Your task to perform on an android device: open chrome privacy settings Image 0: 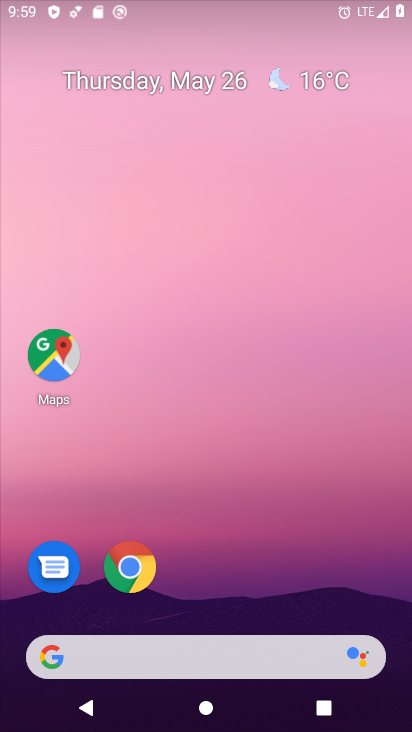
Step 0: click (143, 566)
Your task to perform on an android device: open chrome privacy settings Image 1: 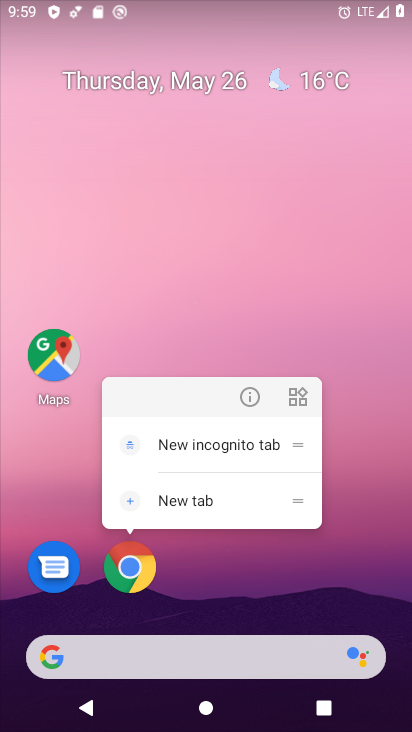
Step 1: click (125, 571)
Your task to perform on an android device: open chrome privacy settings Image 2: 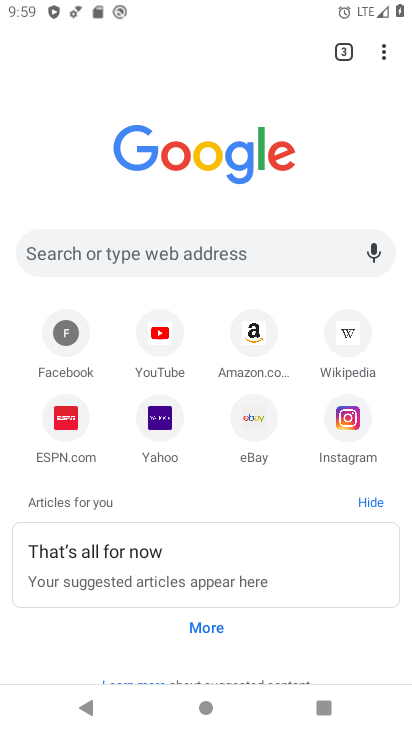
Step 2: click (379, 45)
Your task to perform on an android device: open chrome privacy settings Image 3: 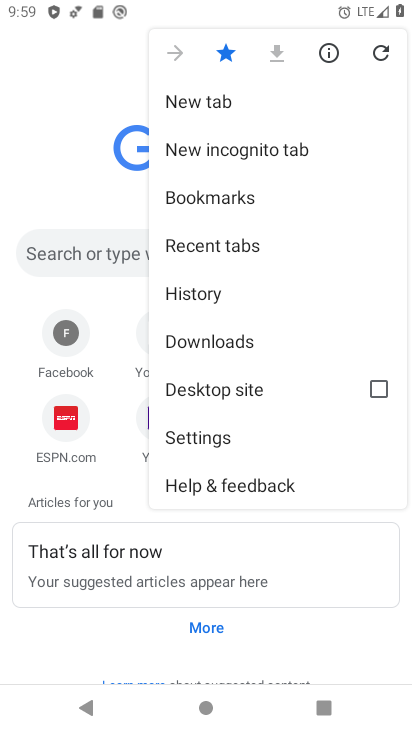
Step 3: click (191, 443)
Your task to perform on an android device: open chrome privacy settings Image 4: 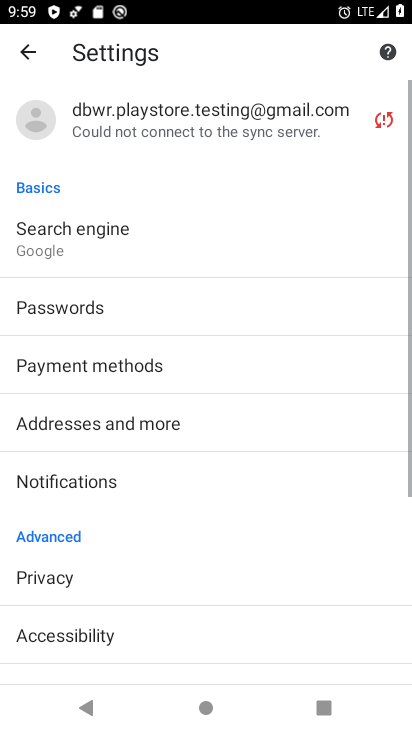
Step 4: click (50, 578)
Your task to perform on an android device: open chrome privacy settings Image 5: 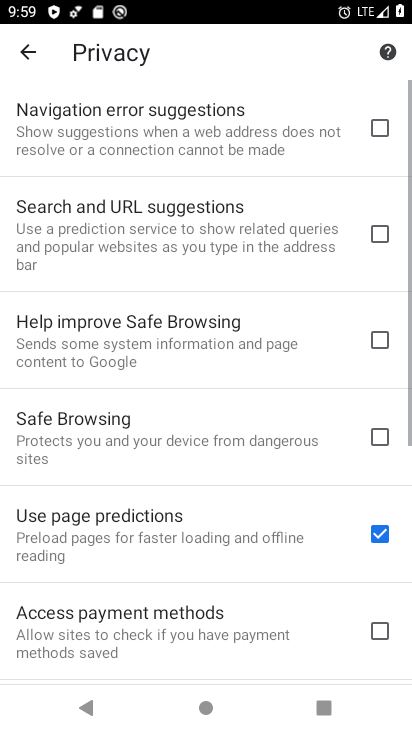
Step 5: task complete